Your task to perform on an android device: empty trash in the gmail app Image 0: 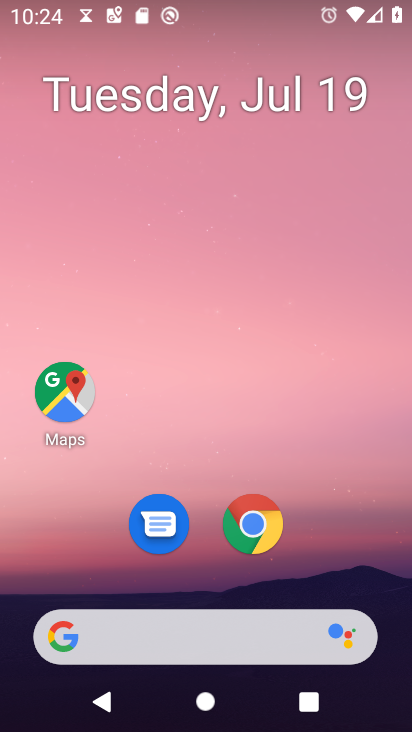
Step 0: drag from (148, 647) to (272, 110)
Your task to perform on an android device: empty trash in the gmail app Image 1: 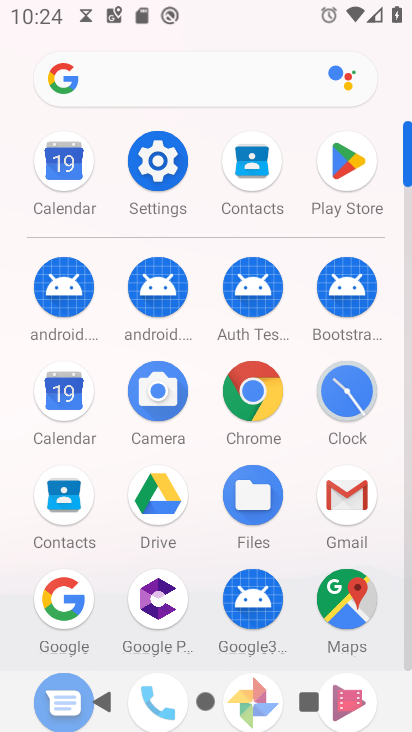
Step 1: click (353, 495)
Your task to perform on an android device: empty trash in the gmail app Image 2: 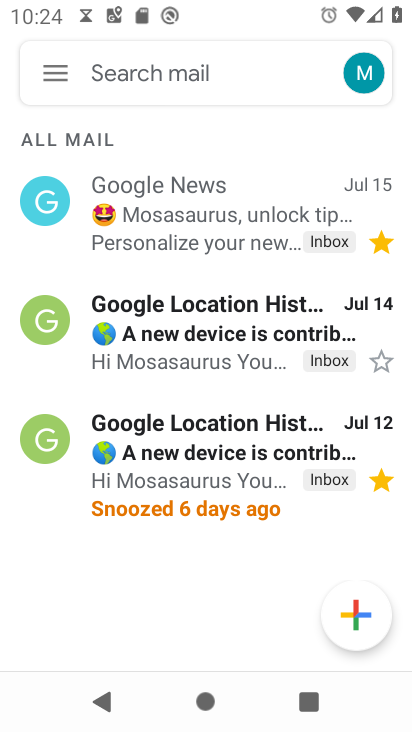
Step 2: click (55, 74)
Your task to perform on an android device: empty trash in the gmail app Image 3: 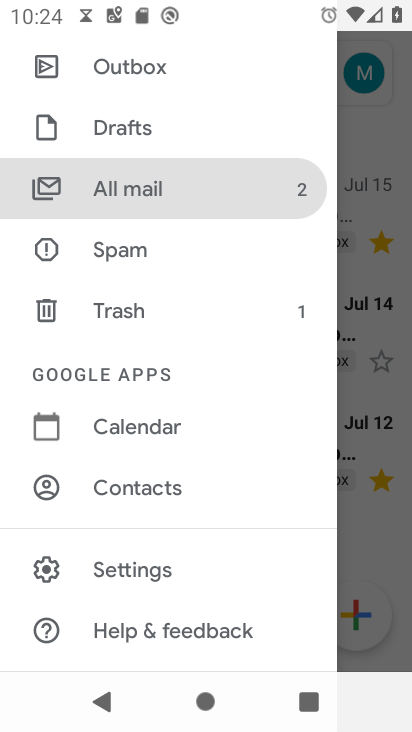
Step 3: click (131, 316)
Your task to perform on an android device: empty trash in the gmail app Image 4: 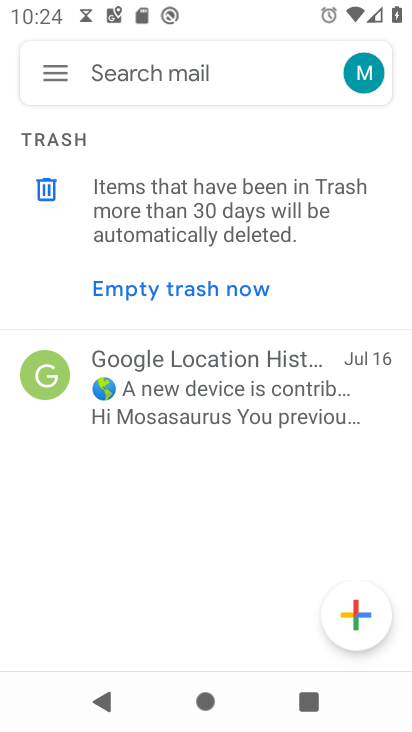
Step 4: click (139, 286)
Your task to perform on an android device: empty trash in the gmail app Image 5: 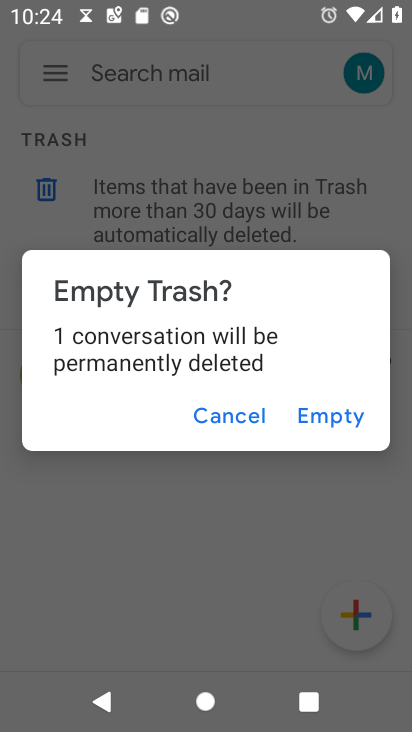
Step 5: click (321, 409)
Your task to perform on an android device: empty trash in the gmail app Image 6: 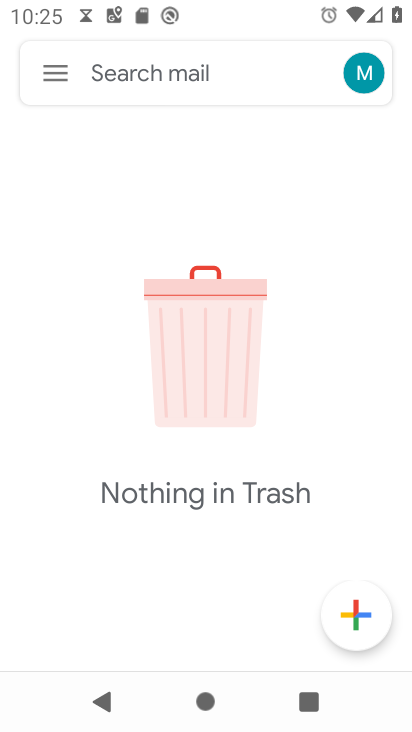
Step 6: task complete